Your task to perform on an android device: turn on the 12-hour format for clock Image 0: 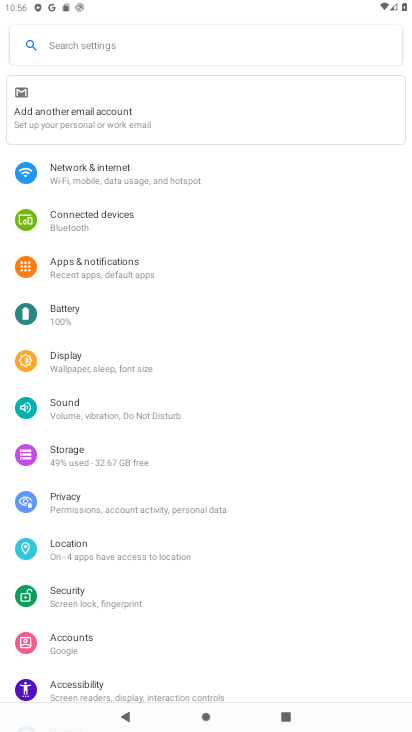
Step 0: press home button
Your task to perform on an android device: turn on the 12-hour format for clock Image 1: 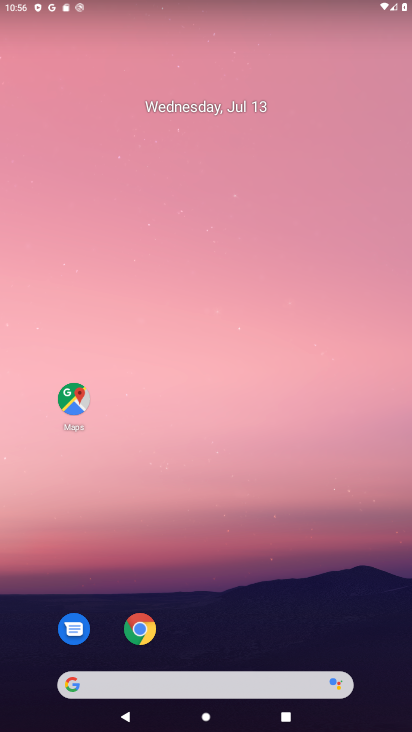
Step 1: drag from (383, 620) to (331, 179)
Your task to perform on an android device: turn on the 12-hour format for clock Image 2: 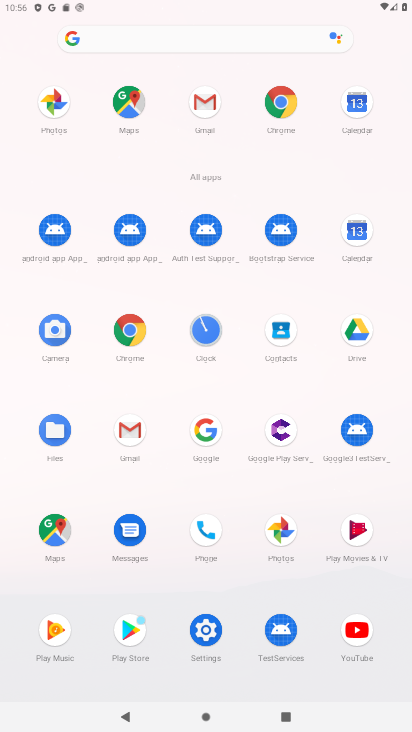
Step 2: click (205, 336)
Your task to perform on an android device: turn on the 12-hour format for clock Image 3: 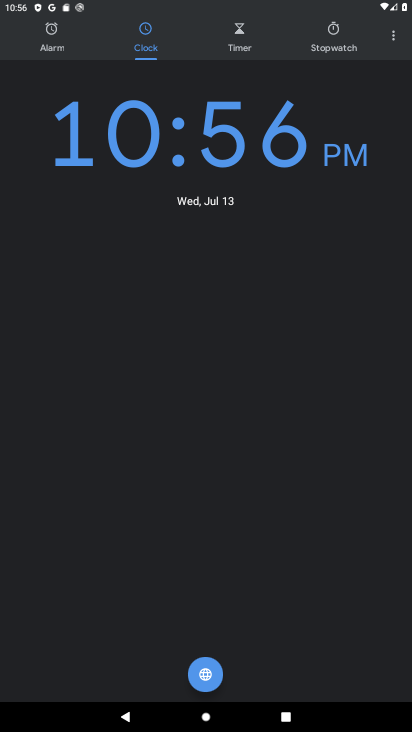
Step 3: click (394, 39)
Your task to perform on an android device: turn on the 12-hour format for clock Image 4: 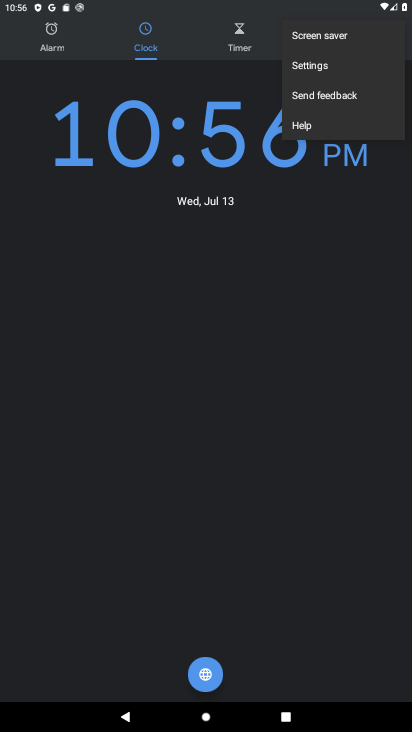
Step 4: click (348, 64)
Your task to perform on an android device: turn on the 12-hour format for clock Image 5: 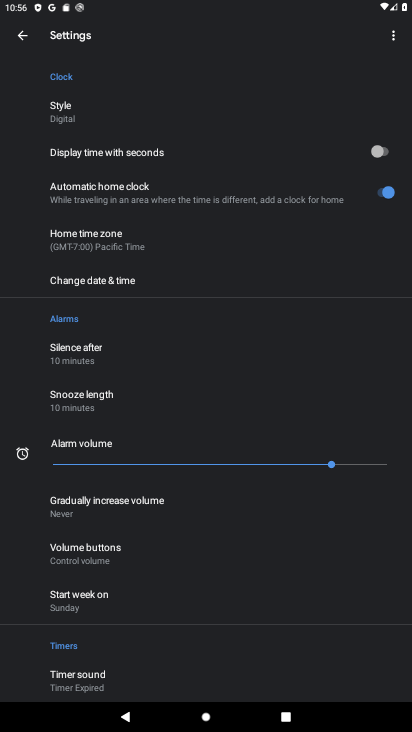
Step 5: click (232, 284)
Your task to perform on an android device: turn on the 12-hour format for clock Image 6: 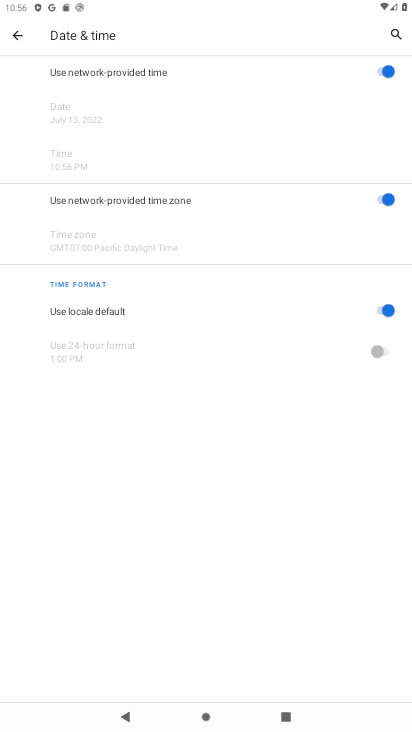
Step 6: task complete